Your task to perform on an android device: Do I have any events today? Image 0: 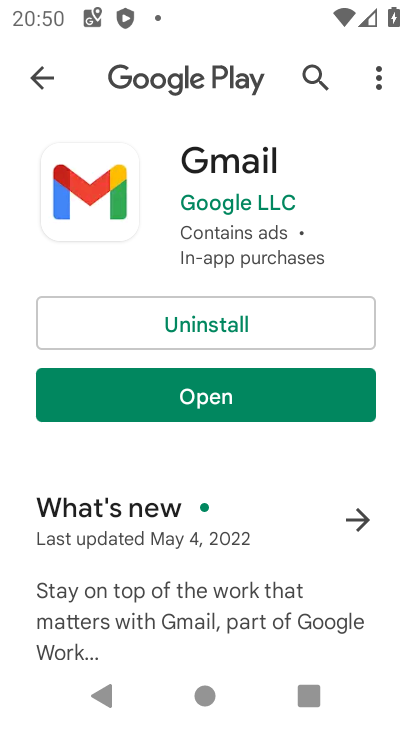
Step 0: press back button
Your task to perform on an android device: Do I have any events today? Image 1: 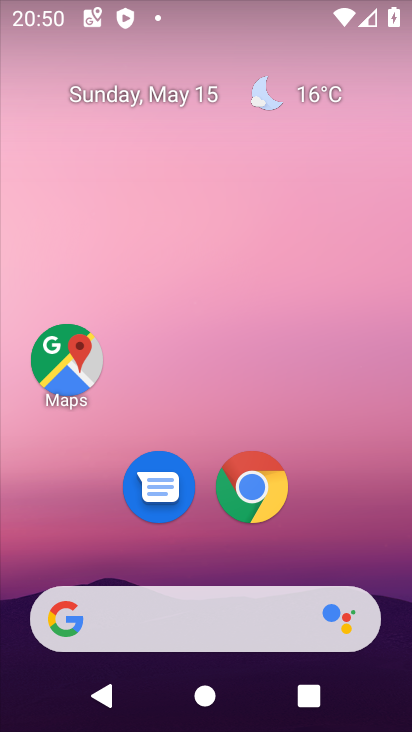
Step 1: click (371, 249)
Your task to perform on an android device: Do I have any events today? Image 2: 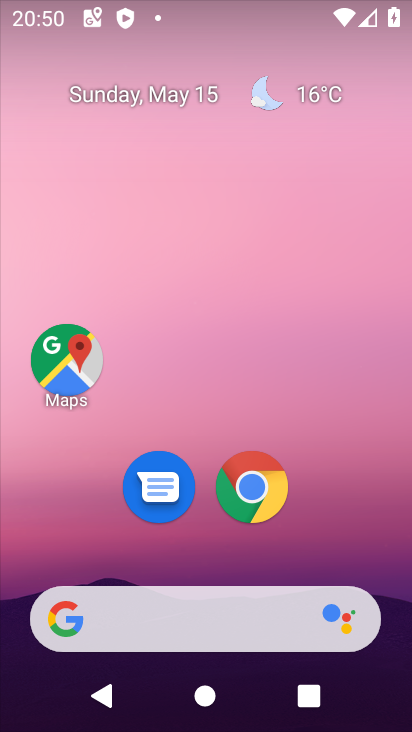
Step 2: drag from (392, 660) to (388, 167)
Your task to perform on an android device: Do I have any events today? Image 3: 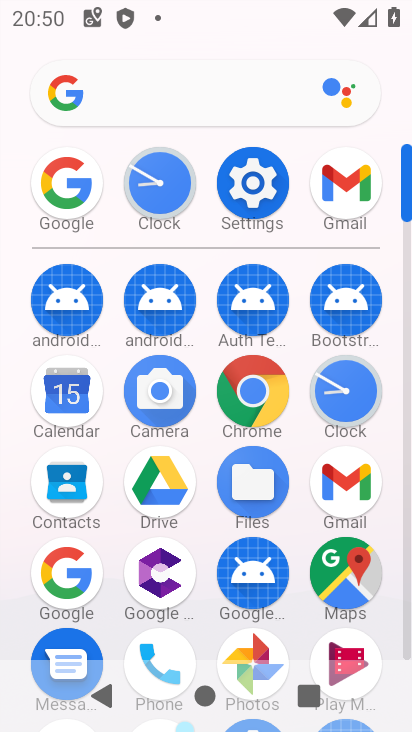
Step 3: click (61, 401)
Your task to perform on an android device: Do I have any events today? Image 4: 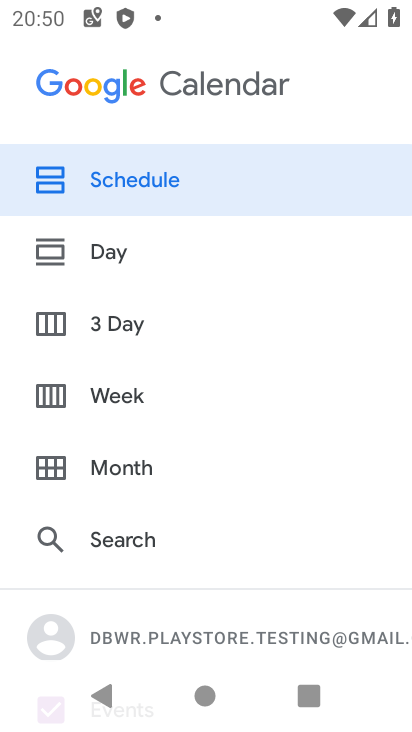
Step 4: drag from (296, 534) to (272, 347)
Your task to perform on an android device: Do I have any events today? Image 5: 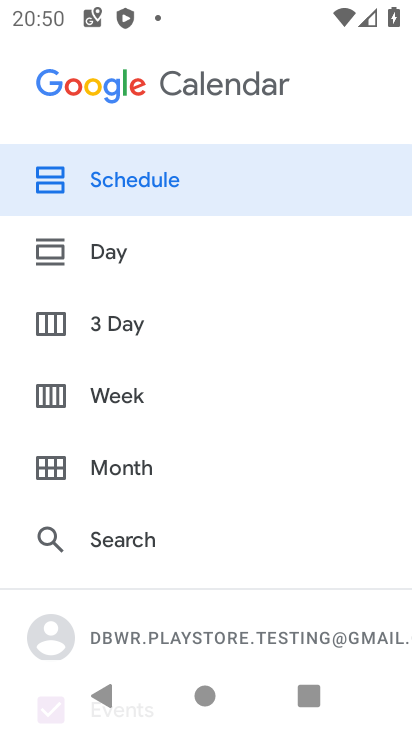
Step 5: click (109, 180)
Your task to perform on an android device: Do I have any events today? Image 6: 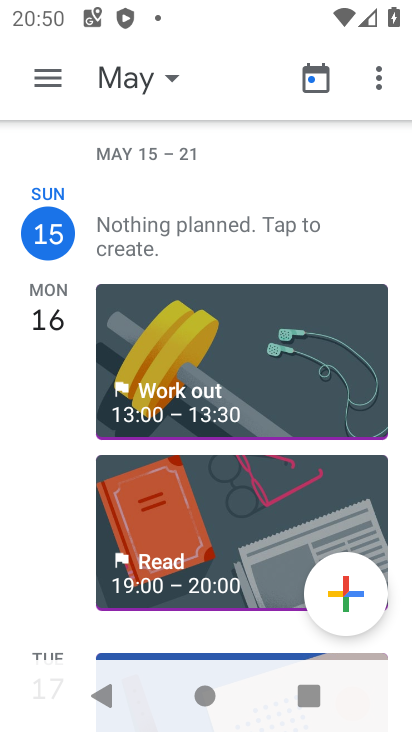
Step 6: click (167, 73)
Your task to perform on an android device: Do I have any events today? Image 7: 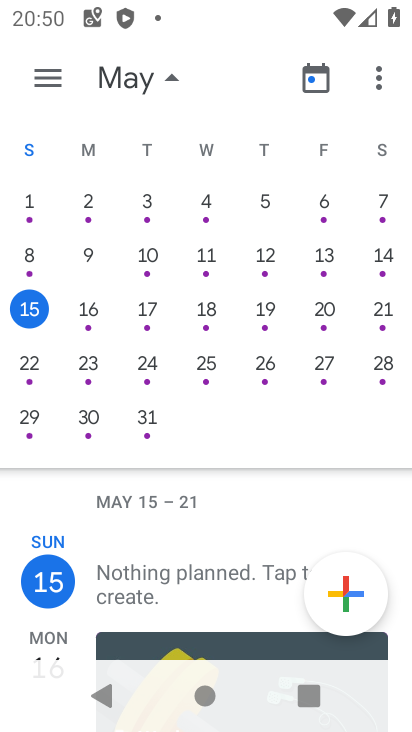
Step 7: click (16, 306)
Your task to perform on an android device: Do I have any events today? Image 8: 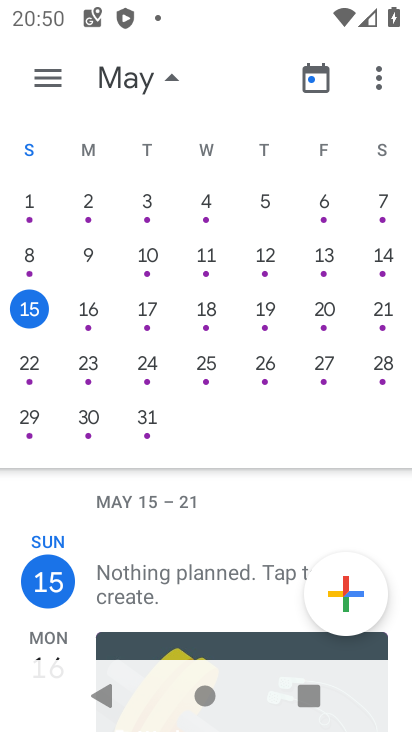
Step 8: click (30, 301)
Your task to perform on an android device: Do I have any events today? Image 9: 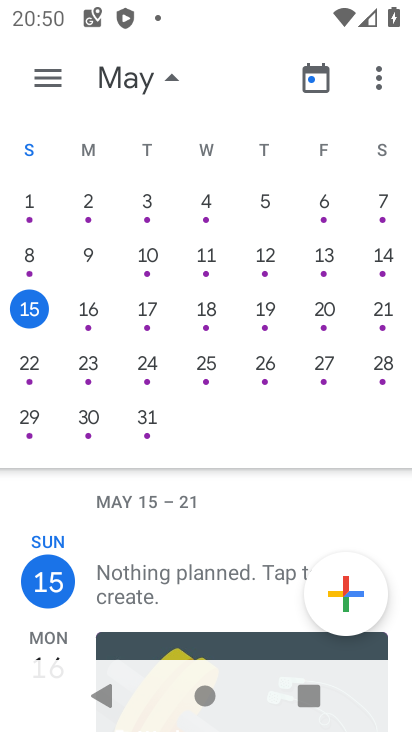
Step 9: task complete